Your task to perform on an android device: Is it going to rain today? Image 0: 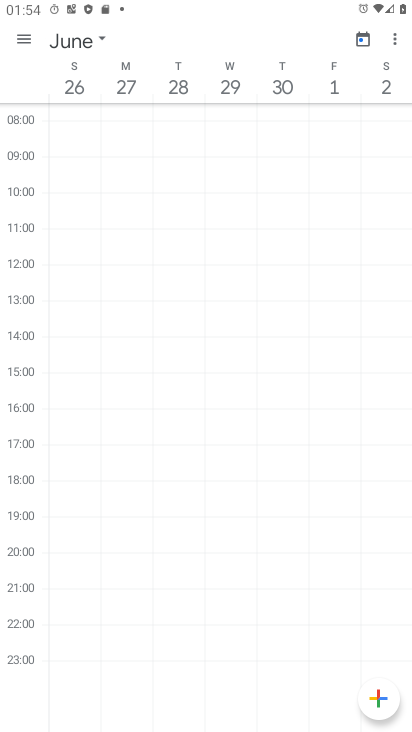
Step 0: press home button
Your task to perform on an android device: Is it going to rain today? Image 1: 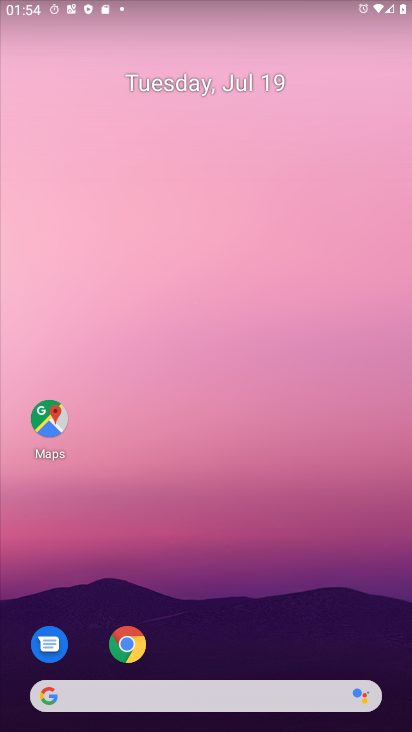
Step 1: drag from (216, 712) to (216, 199)
Your task to perform on an android device: Is it going to rain today? Image 2: 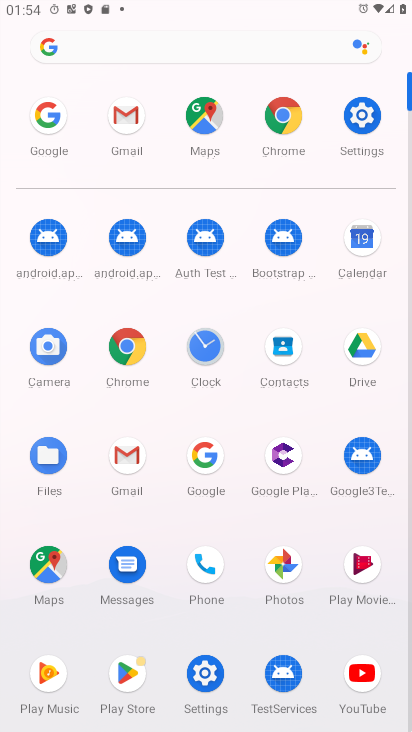
Step 2: click (203, 455)
Your task to perform on an android device: Is it going to rain today? Image 3: 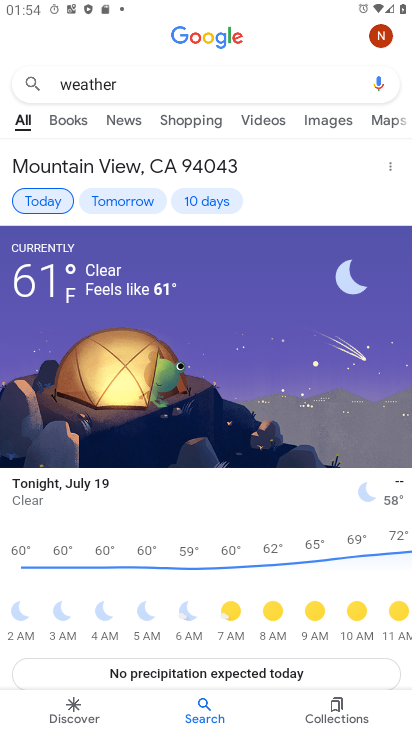
Step 3: click (34, 199)
Your task to perform on an android device: Is it going to rain today? Image 4: 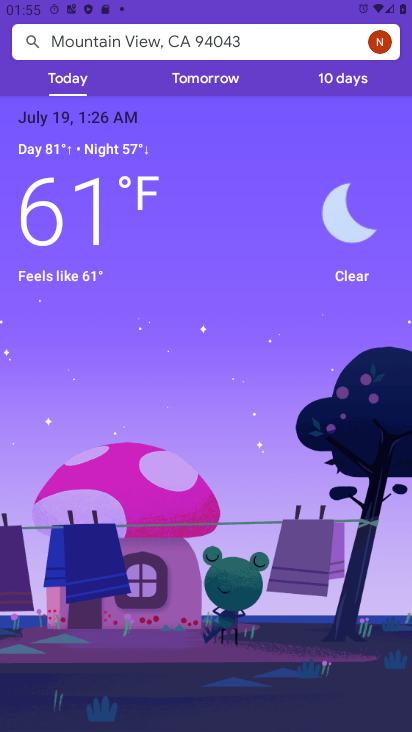
Step 4: task complete